Your task to perform on an android device: Open Google Chrome Image 0: 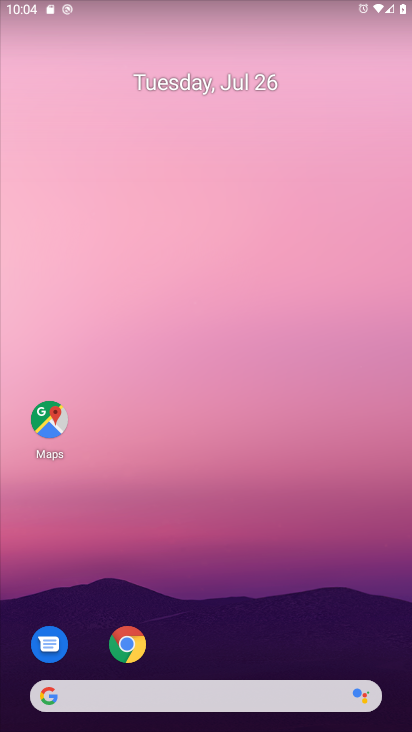
Step 0: click (124, 654)
Your task to perform on an android device: Open Google Chrome Image 1: 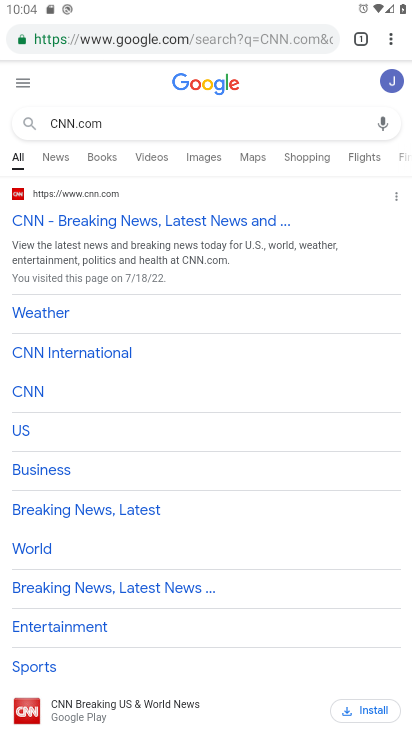
Step 1: task complete